Your task to perform on an android device: turn on bluetooth scan Image 0: 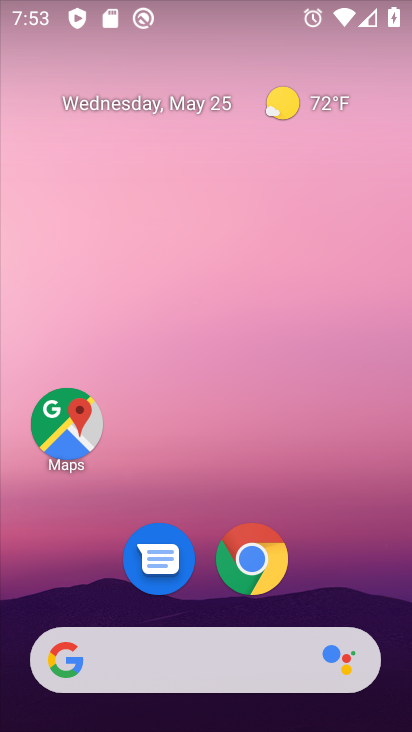
Step 0: drag from (179, 622) to (270, 216)
Your task to perform on an android device: turn on bluetooth scan Image 1: 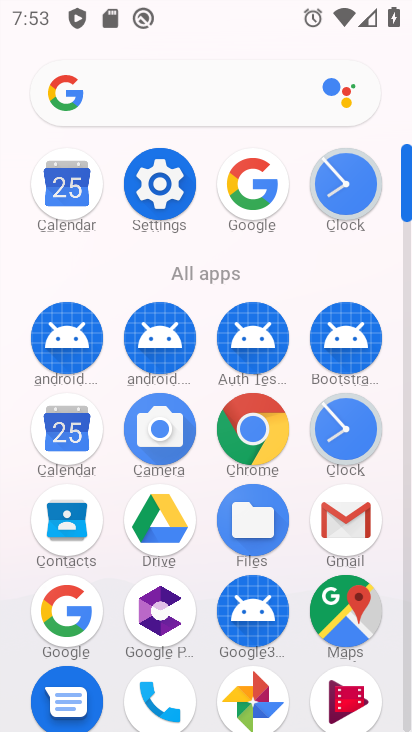
Step 1: click (185, 201)
Your task to perform on an android device: turn on bluetooth scan Image 2: 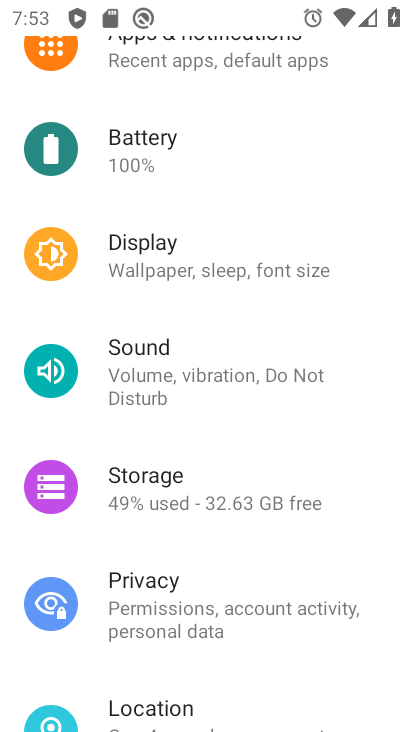
Step 2: drag from (176, 247) to (155, 569)
Your task to perform on an android device: turn on bluetooth scan Image 3: 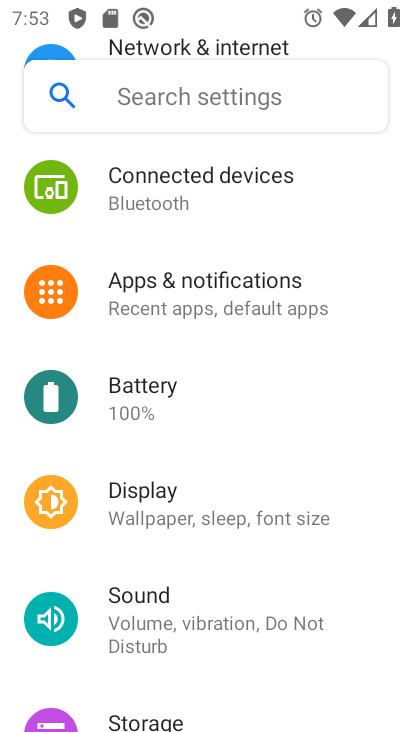
Step 3: click (256, 216)
Your task to perform on an android device: turn on bluetooth scan Image 4: 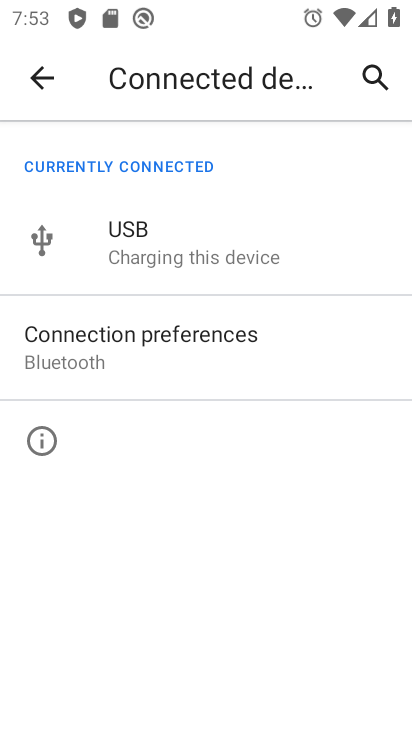
Step 4: click (146, 353)
Your task to perform on an android device: turn on bluetooth scan Image 5: 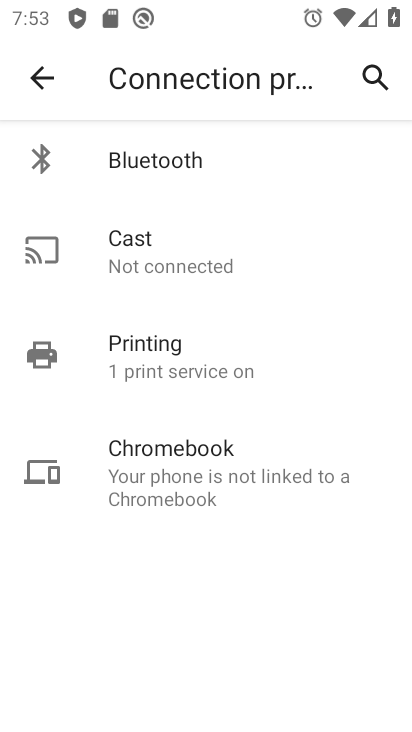
Step 5: click (234, 134)
Your task to perform on an android device: turn on bluetooth scan Image 6: 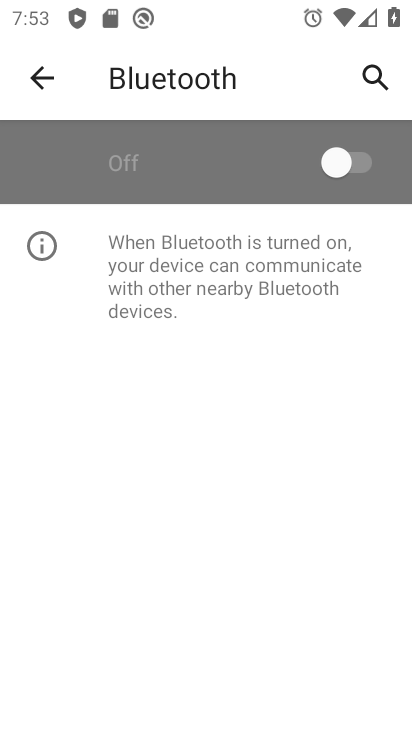
Step 6: click (349, 175)
Your task to perform on an android device: turn on bluetooth scan Image 7: 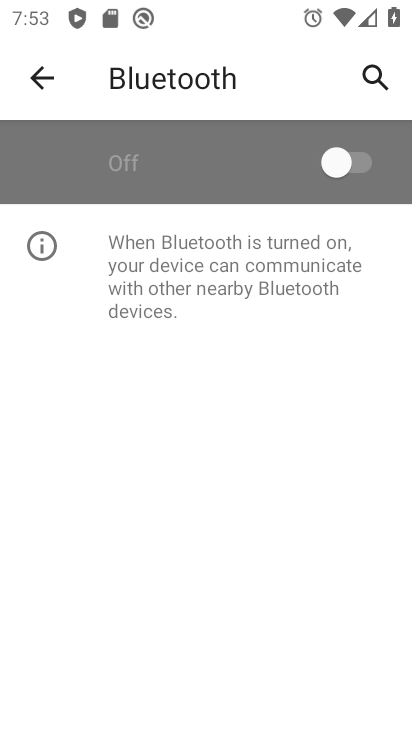
Step 7: task complete